Your task to perform on an android device: Empty the shopping cart on target.com. Search for razer blade on target.com, select the first entry, and add it to the cart. Image 0: 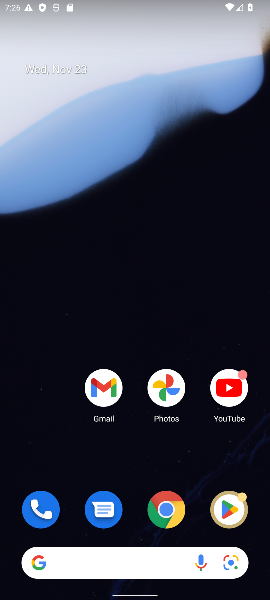
Step 0: click (166, 507)
Your task to perform on an android device: Empty the shopping cart on target.com. Search for razer blade on target.com, select the first entry, and add it to the cart. Image 1: 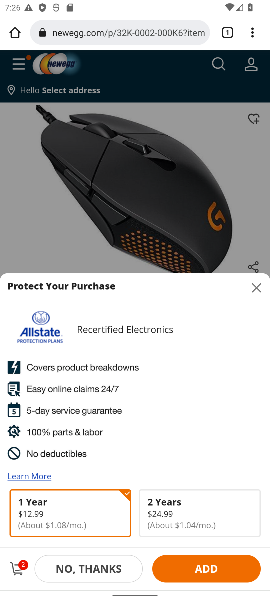
Step 1: click (253, 283)
Your task to perform on an android device: Empty the shopping cart on target.com. Search for razer blade on target.com, select the first entry, and add it to the cart. Image 2: 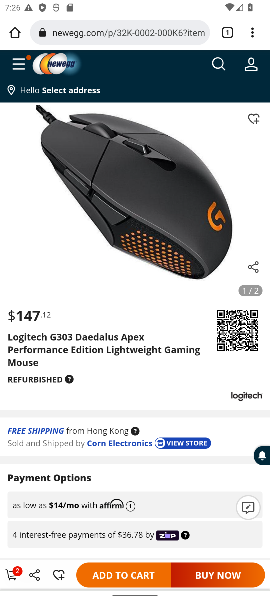
Step 2: click (123, 29)
Your task to perform on an android device: Empty the shopping cart on target.com. Search for razer blade on target.com, select the first entry, and add it to the cart. Image 3: 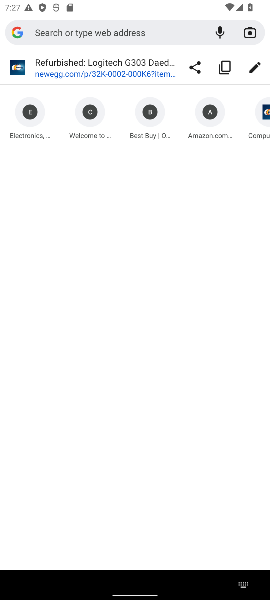
Step 3: type "target.com"
Your task to perform on an android device: Empty the shopping cart on target.com. Search for razer blade on target.com, select the first entry, and add it to the cart. Image 4: 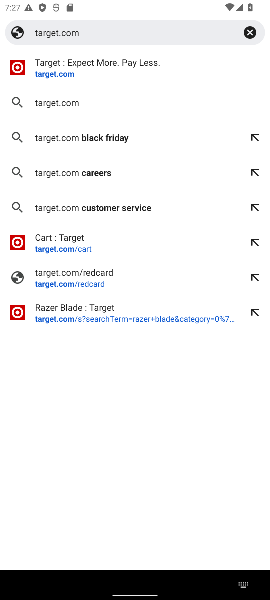
Step 4: click (71, 66)
Your task to perform on an android device: Empty the shopping cart on target.com. Search for razer blade on target.com, select the first entry, and add it to the cart. Image 5: 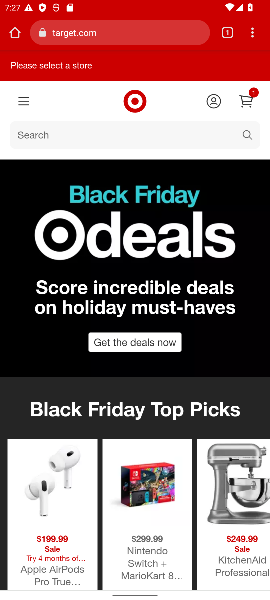
Step 5: click (245, 96)
Your task to perform on an android device: Empty the shopping cart on target.com. Search for razer blade on target.com, select the first entry, and add it to the cart. Image 6: 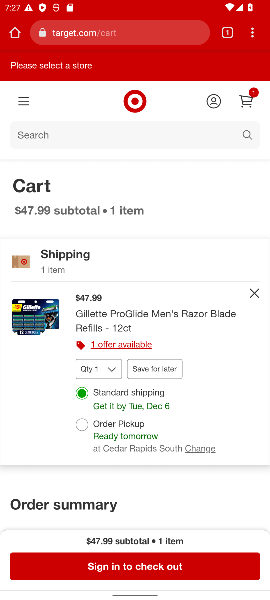
Step 6: click (254, 289)
Your task to perform on an android device: Empty the shopping cart on target.com. Search for razer blade on target.com, select the first entry, and add it to the cart. Image 7: 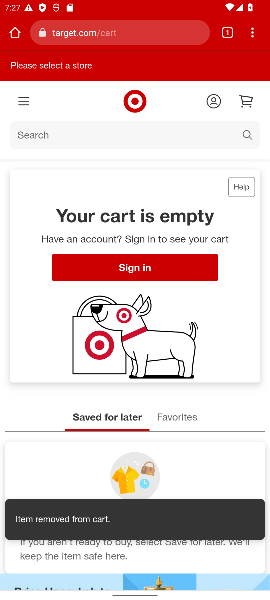
Step 7: click (103, 130)
Your task to perform on an android device: Empty the shopping cart on target.com. Search for razer blade on target.com, select the first entry, and add it to the cart. Image 8: 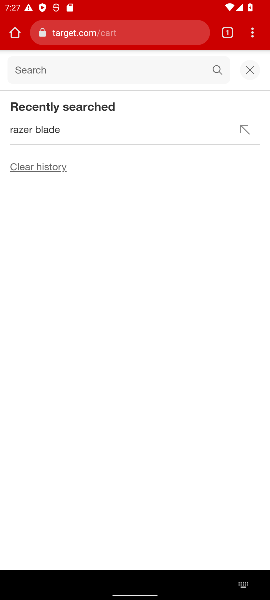
Step 8: type "razer blade"
Your task to perform on an android device: Empty the shopping cart on target.com. Search for razer blade on target.com, select the first entry, and add it to the cart. Image 9: 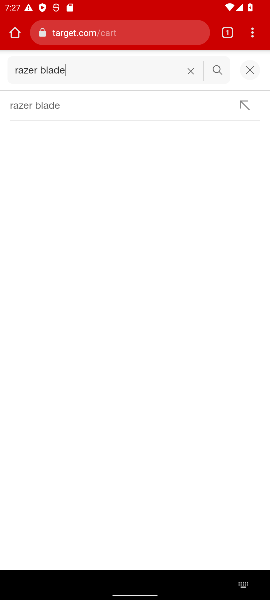
Step 9: click (64, 101)
Your task to perform on an android device: Empty the shopping cart on target.com. Search for razer blade on target.com, select the first entry, and add it to the cart. Image 10: 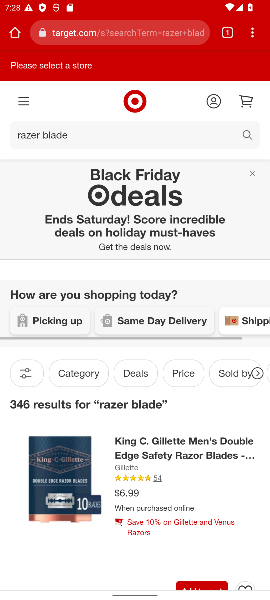
Step 10: drag from (133, 475) to (106, 300)
Your task to perform on an android device: Empty the shopping cart on target.com. Search for razer blade on target.com, select the first entry, and add it to the cart. Image 11: 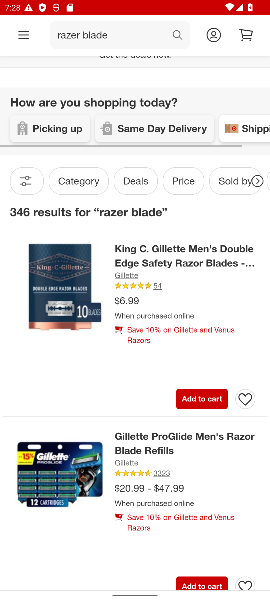
Step 11: click (200, 399)
Your task to perform on an android device: Empty the shopping cart on target.com. Search for razer blade on target.com, select the first entry, and add it to the cart. Image 12: 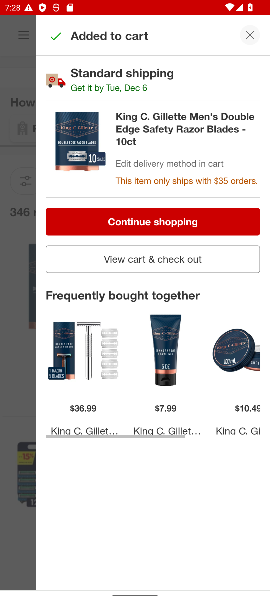
Step 12: task complete